Your task to perform on an android device: Go to Google maps Image 0: 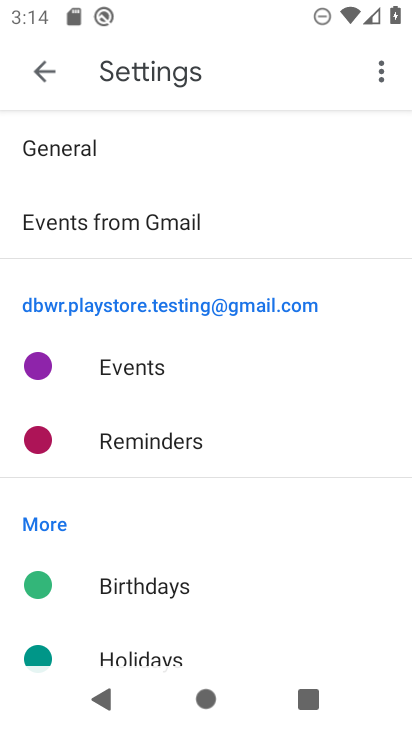
Step 0: press home button
Your task to perform on an android device: Go to Google maps Image 1: 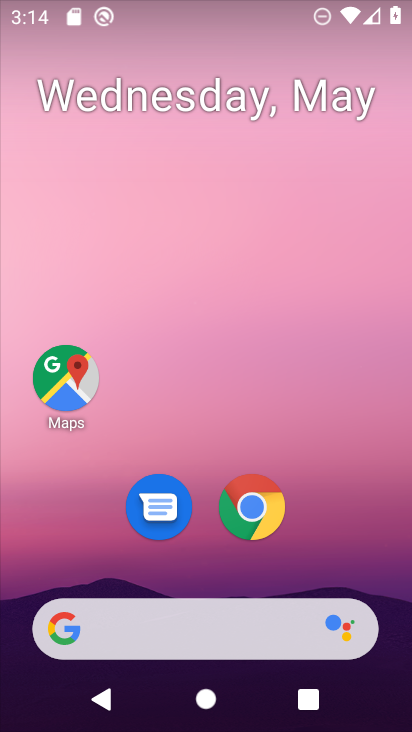
Step 1: click (74, 389)
Your task to perform on an android device: Go to Google maps Image 2: 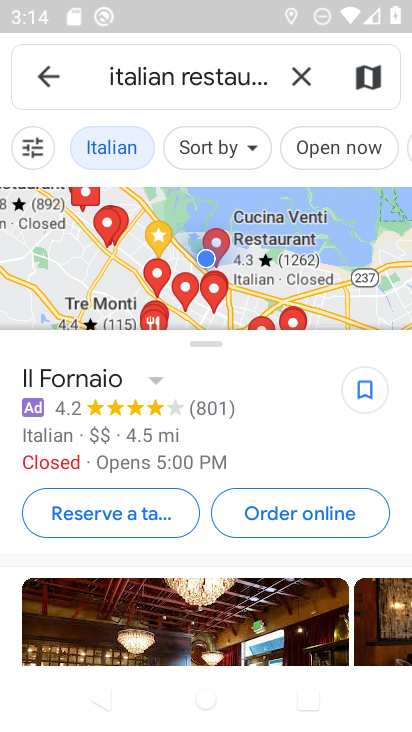
Step 2: click (43, 72)
Your task to perform on an android device: Go to Google maps Image 3: 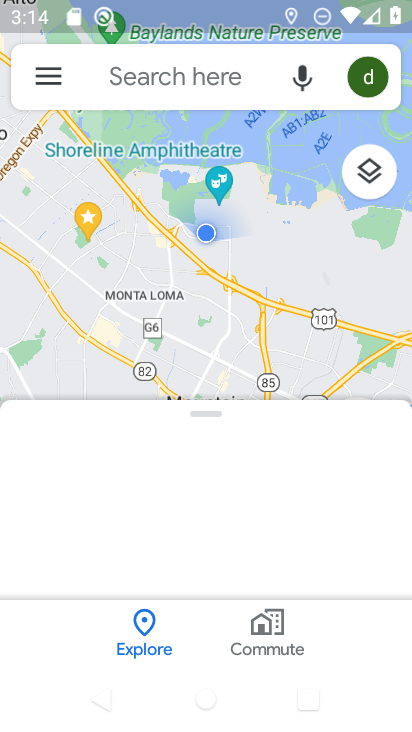
Step 3: task complete